Your task to perform on an android device: Play the latest video from the New York Times Image 0: 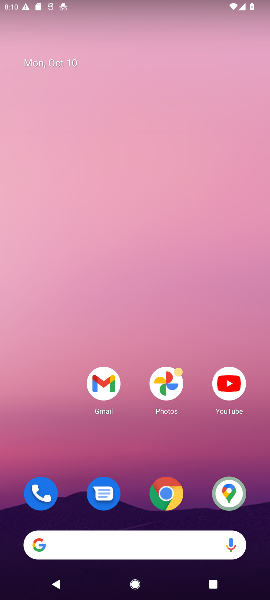
Step 0: click (231, 373)
Your task to perform on an android device: Play the latest video from the New York Times Image 1: 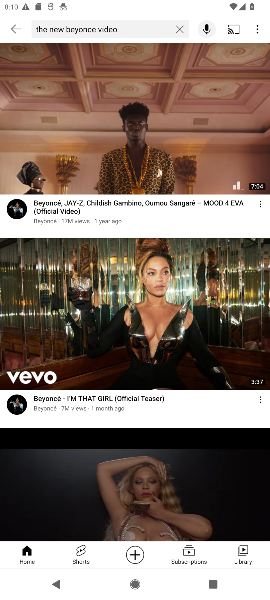
Step 1: click (180, 25)
Your task to perform on an android device: Play the latest video from the New York Times Image 2: 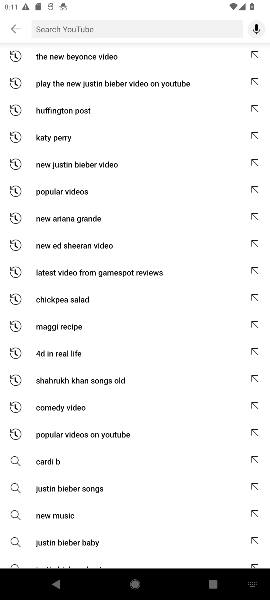
Step 2: type "Play the latest video from the New York Times"
Your task to perform on an android device: Play the latest video from the New York Times Image 3: 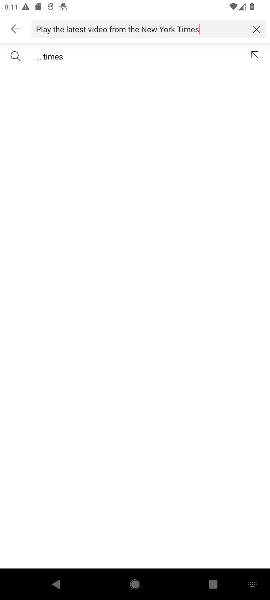
Step 3: click (59, 59)
Your task to perform on an android device: Play the latest video from the New York Times Image 4: 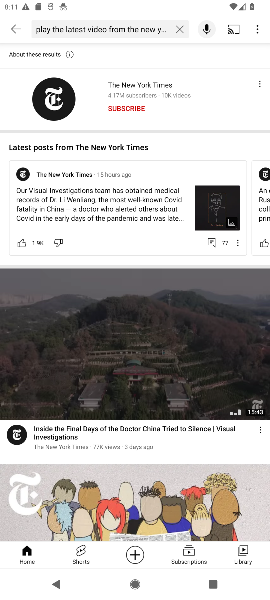
Step 4: task complete